Your task to perform on an android device: toggle javascript in the chrome app Image 0: 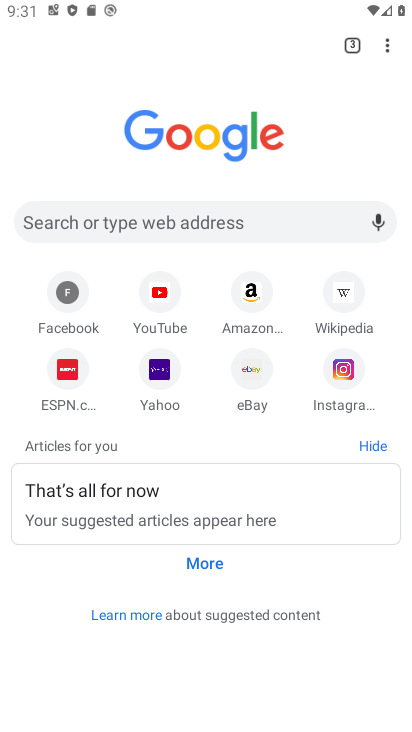
Step 0: click (386, 40)
Your task to perform on an android device: toggle javascript in the chrome app Image 1: 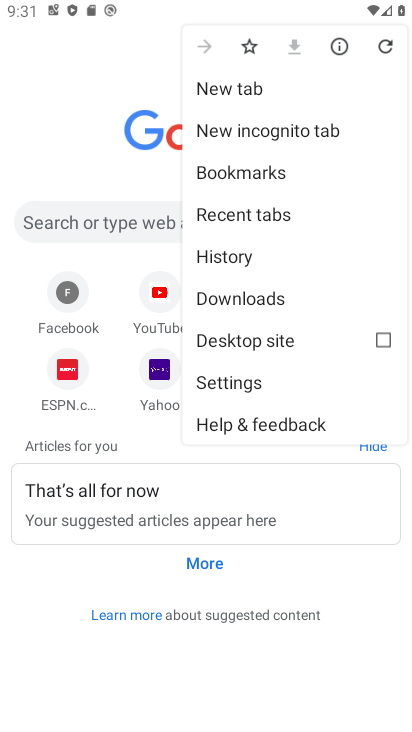
Step 1: click (269, 386)
Your task to perform on an android device: toggle javascript in the chrome app Image 2: 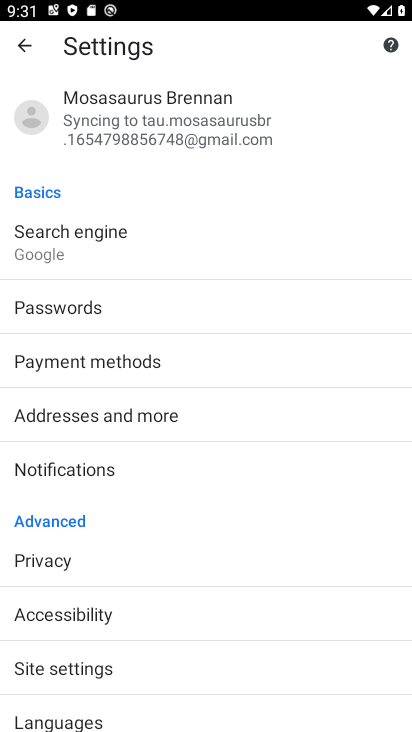
Step 2: drag from (237, 602) to (250, 340)
Your task to perform on an android device: toggle javascript in the chrome app Image 3: 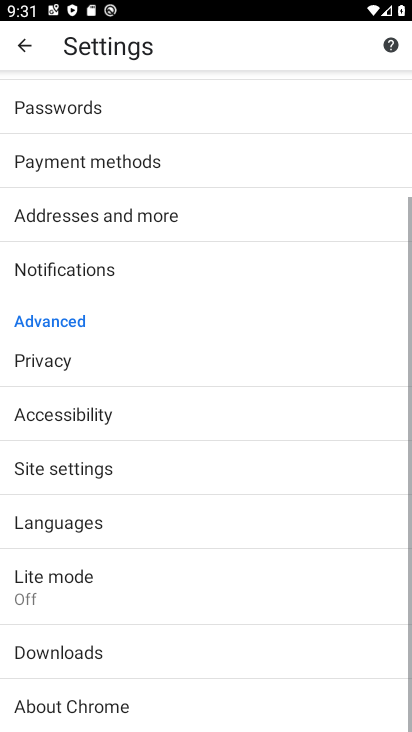
Step 3: click (108, 476)
Your task to perform on an android device: toggle javascript in the chrome app Image 4: 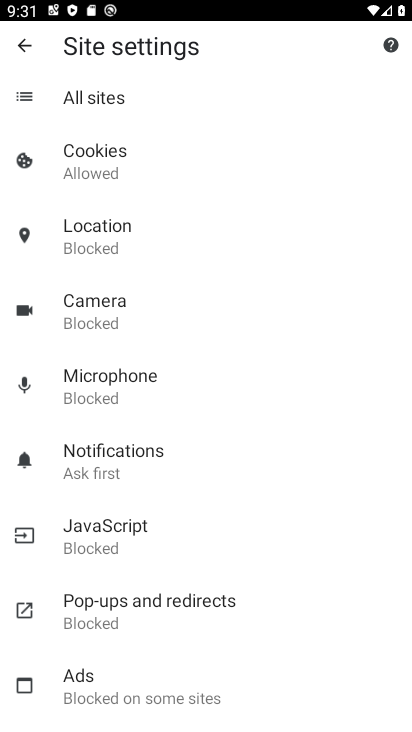
Step 4: click (140, 529)
Your task to perform on an android device: toggle javascript in the chrome app Image 5: 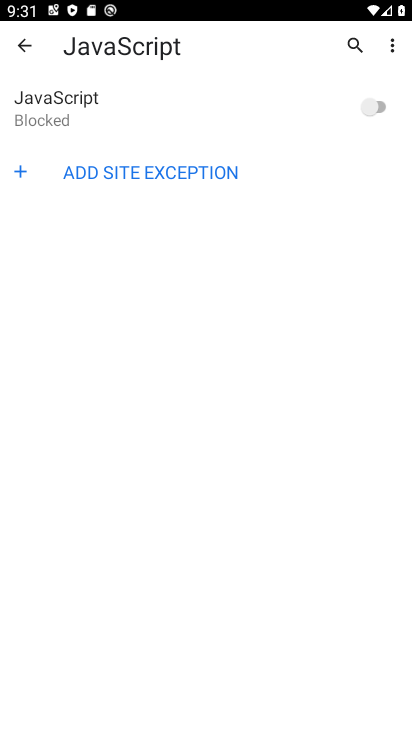
Step 5: click (375, 103)
Your task to perform on an android device: toggle javascript in the chrome app Image 6: 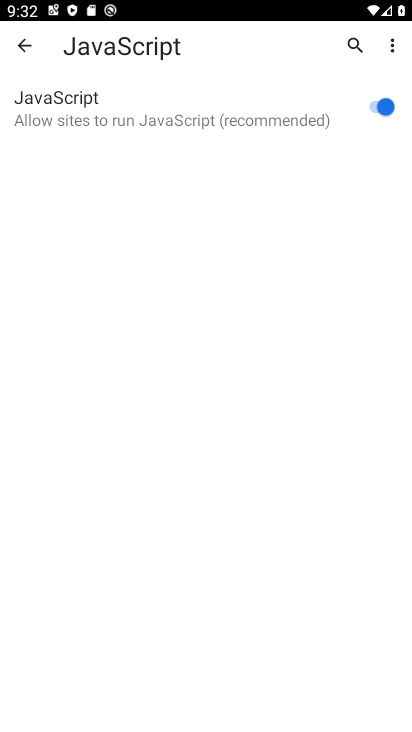
Step 6: task complete